Your task to perform on an android device: What's the weather? Image 0: 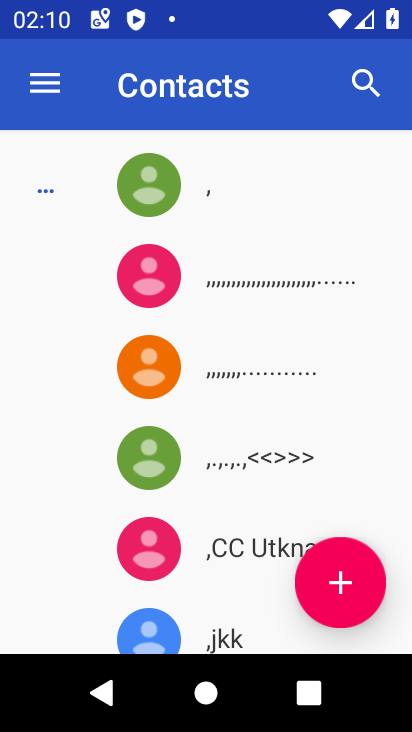
Step 0: press home button
Your task to perform on an android device: What's the weather? Image 1: 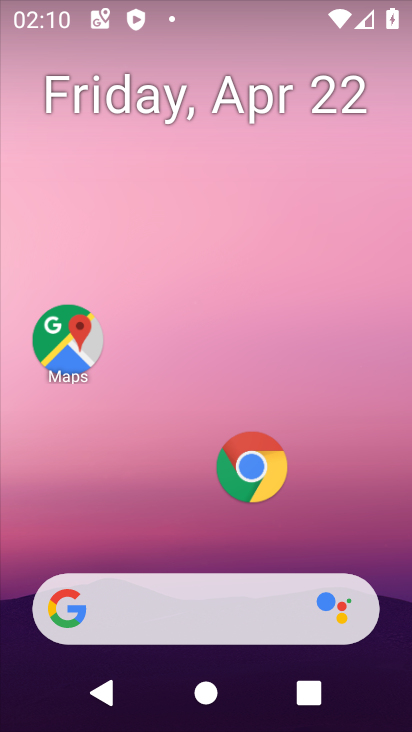
Step 1: click (264, 459)
Your task to perform on an android device: What's the weather? Image 2: 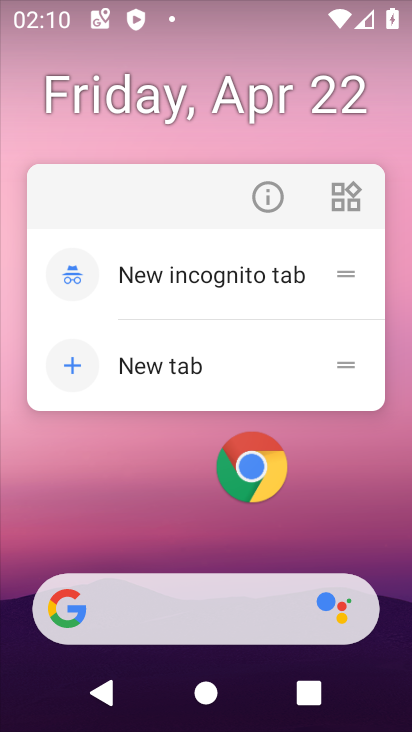
Step 2: click (269, 202)
Your task to perform on an android device: What's the weather? Image 3: 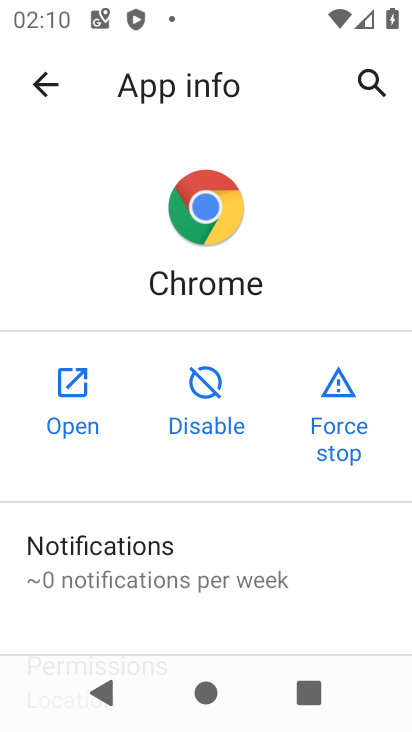
Step 3: click (79, 397)
Your task to perform on an android device: What's the weather? Image 4: 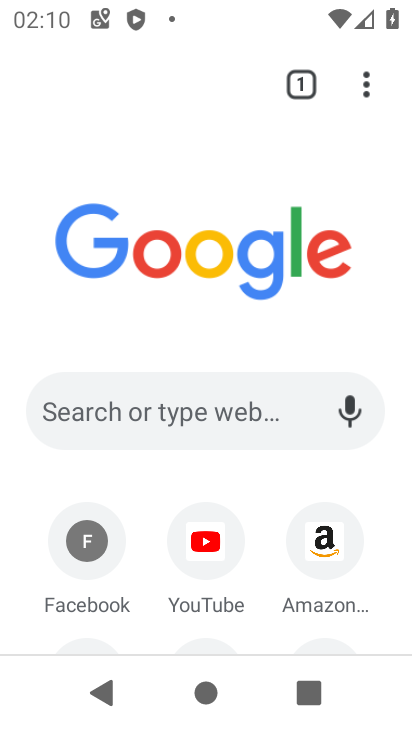
Step 4: click (115, 410)
Your task to perform on an android device: What's the weather? Image 5: 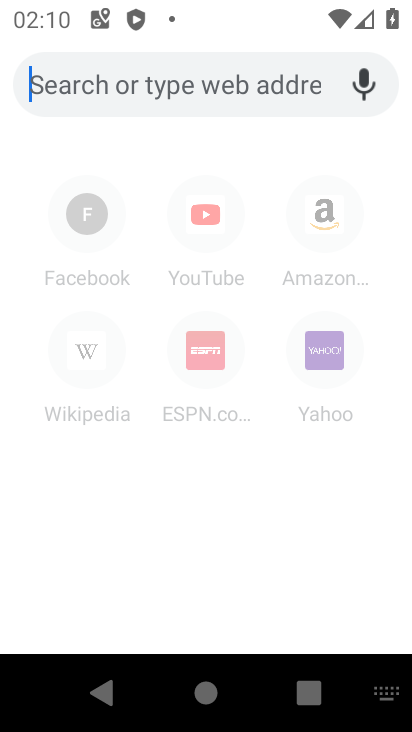
Step 5: type "weather"
Your task to perform on an android device: What's the weather? Image 6: 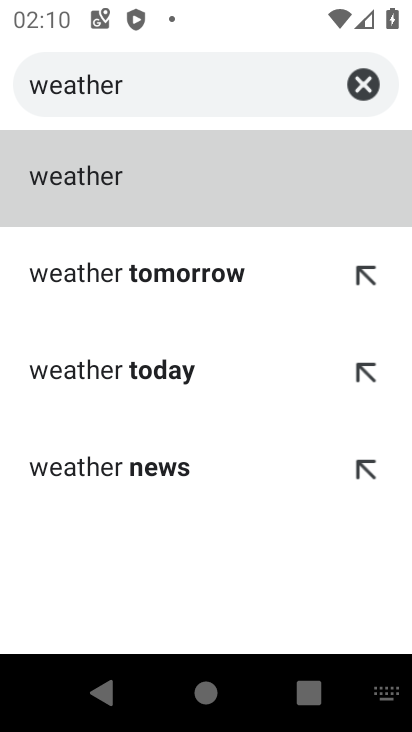
Step 6: click (119, 205)
Your task to perform on an android device: What's the weather? Image 7: 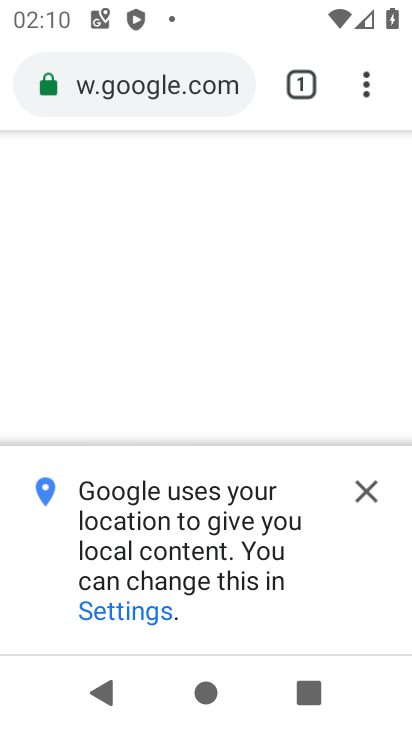
Step 7: task complete